Your task to perform on an android device: What's the weather going to be this weekend? Image 0: 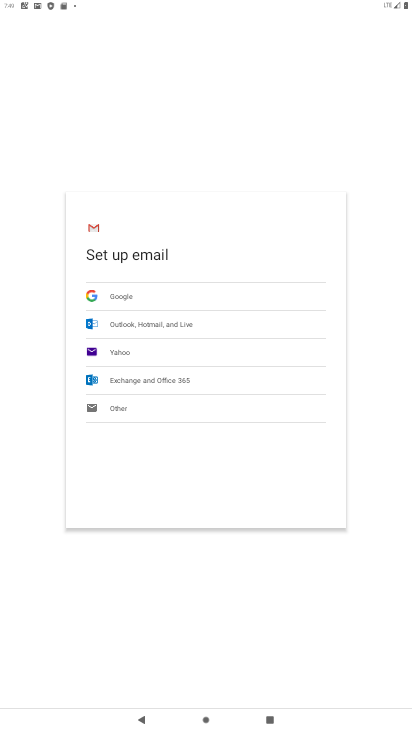
Step 0: press home button
Your task to perform on an android device: What's the weather going to be this weekend? Image 1: 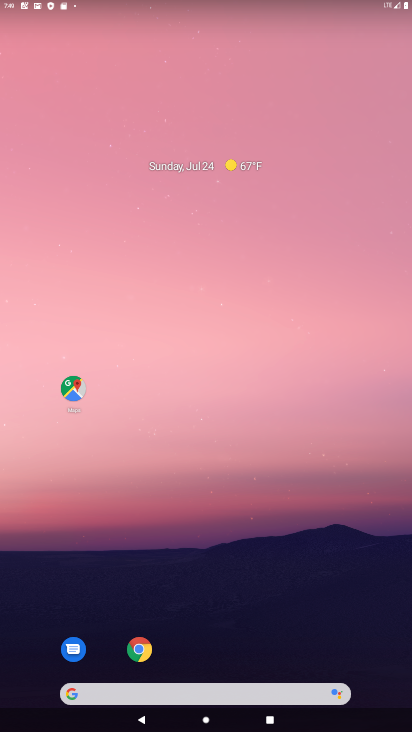
Step 1: click (263, 693)
Your task to perform on an android device: What's the weather going to be this weekend? Image 2: 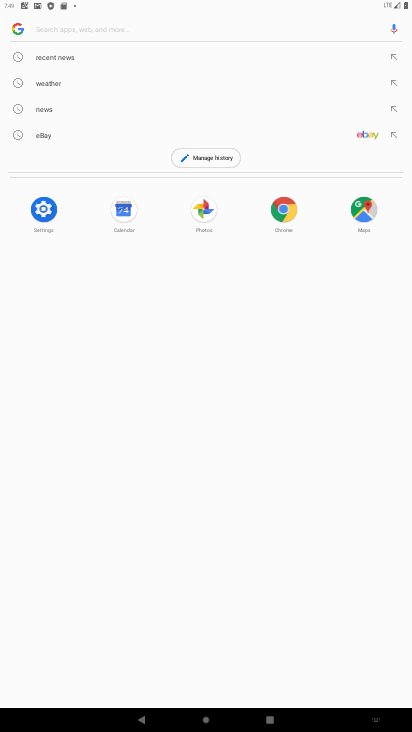
Step 2: click (31, 90)
Your task to perform on an android device: What's the weather going to be this weekend? Image 3: 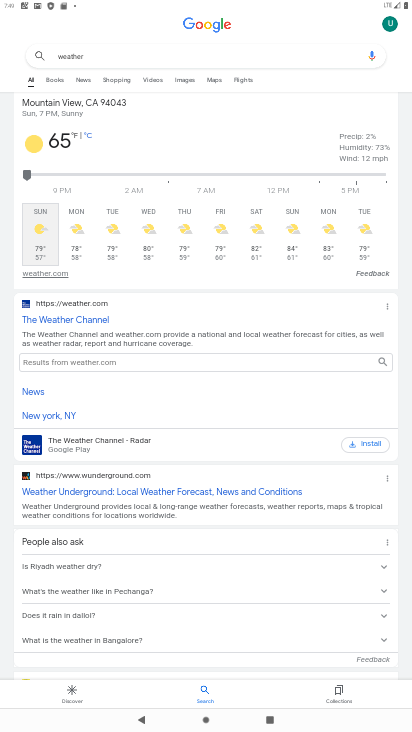
Step 3: task complete